Your task to perform on an android device: Open Reddit.com Image 0: 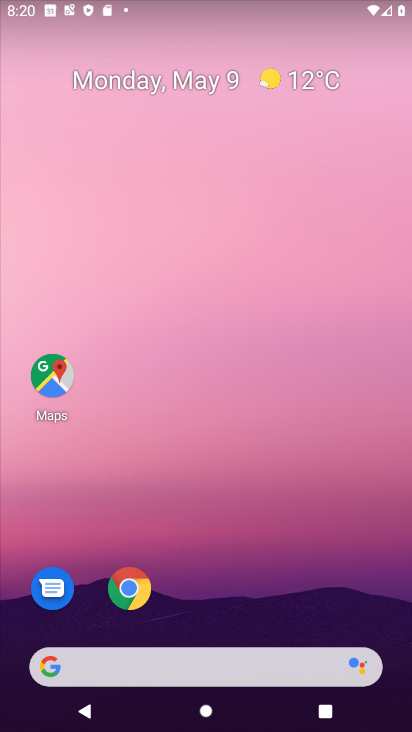
Step 0: drag from (203, 641) to (342, 71)
Your task to perform on an android device: Open Reddit.com Image 1: 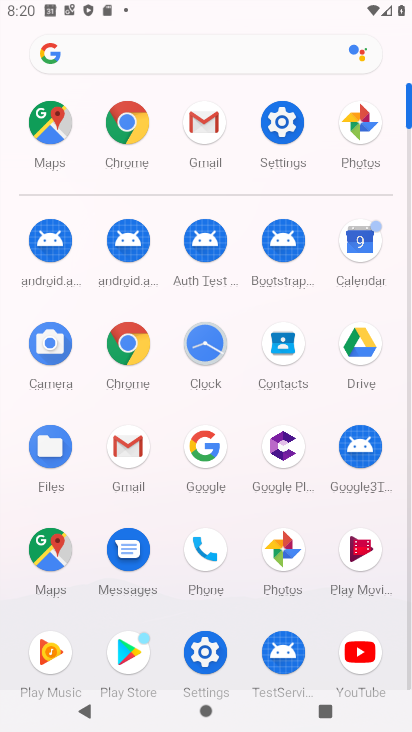
Step 1: click (128, 136)
Your task to perform on an android device: Open Reddit.com Image 2: 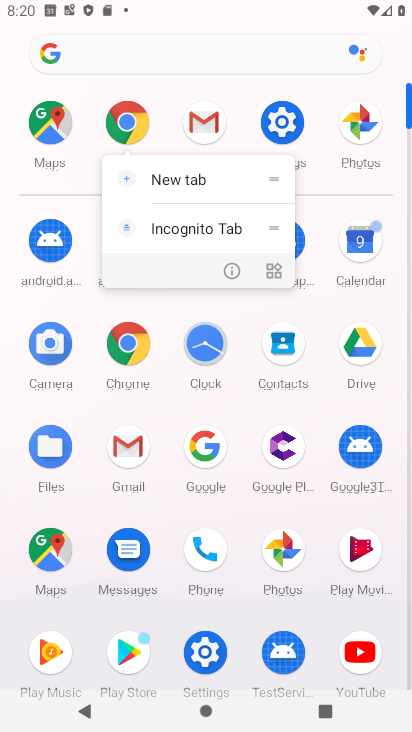
Step 2: click (129, 129)
Your task to perform on an android device: Open Reddit.com Image 3: 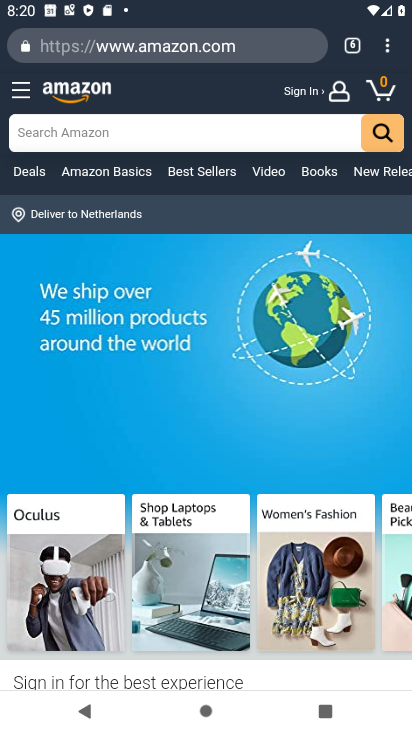
Step 3: drag from (387, 45) to (295, 93)
Your task to perform on an android device: Open Reddit.com Image 4: 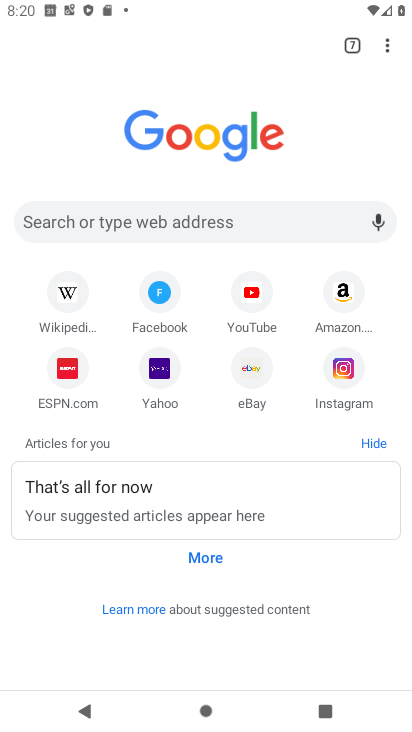
Step 4: click (128, 223)
Your task to perform on an android device: Open Reddit.com Image 5: 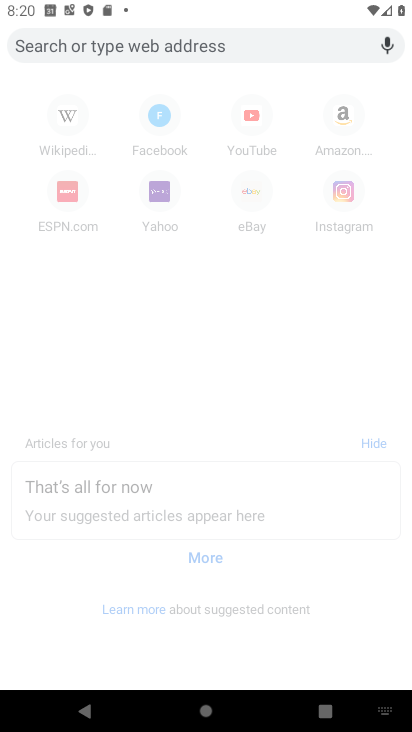
Step 5: type "reddit.com"
Your task to perform on an android device: Open Reddit.com Image 6: 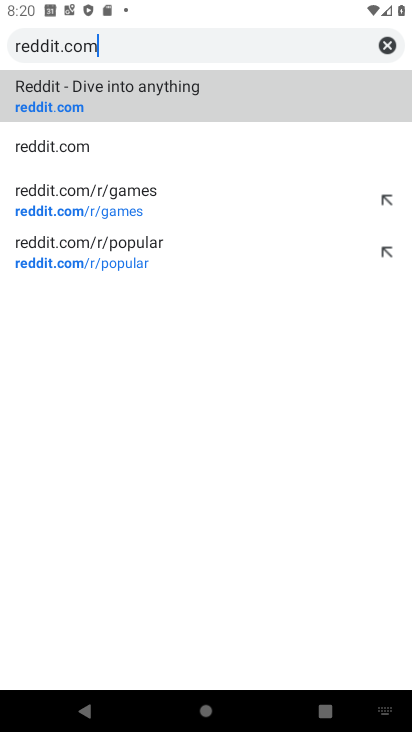
Step 6: click (138, 95)
Your task to perform on an android device: Open Reddit.com Image 7: 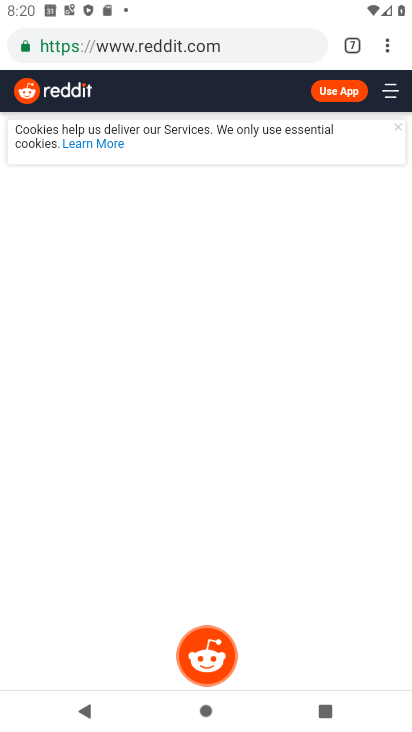
Step 7: task complete